Your task to perform on an android device: Search for "sony triple a" on walmart.com, select the first entry, and add it to the cart. Image 0: 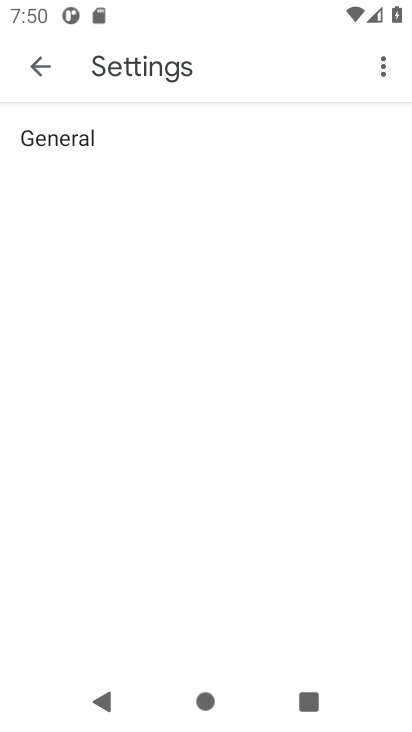
Step 0: press home button
Your task to perform on an android device: Search for "sony triple a" on walmart.com, select the first entry, and add it to the cart. Image 1: 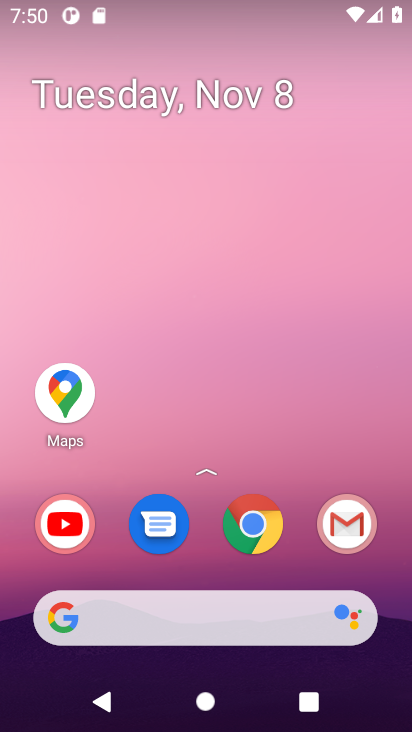
Step 1: click (259, 540)
Your task to perform on an android device: Search for "sony triple a" on walmart.com, select the first entry, and add it to the cart. Image 2: 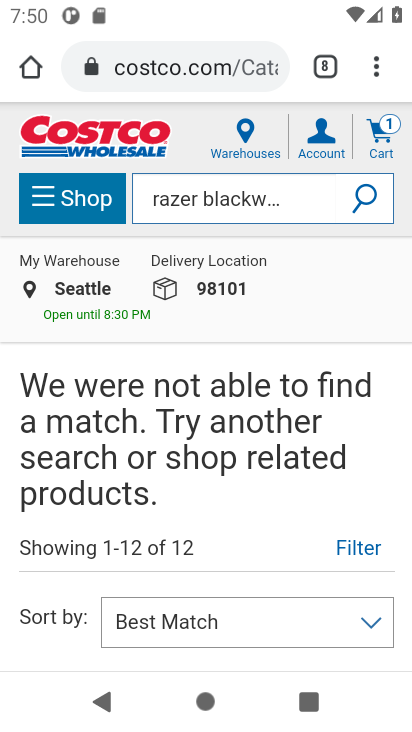
Step 2: click (197, 72)
Your task to perform on an android device: Search for "sony triple a" on walmart.com, select the first entry, and add it to the cart. Image 3: 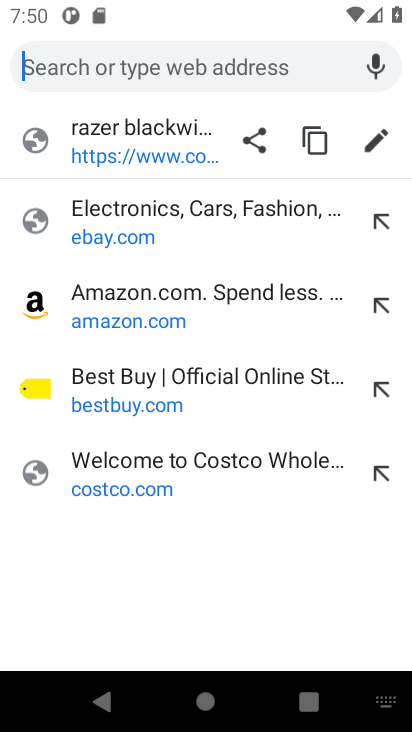
Step 3: type "walmart.com"
Your task to perform on an android device: Search for "sony triple a" on walmart.com, select the first entry, and add it to the cart. Image 4: 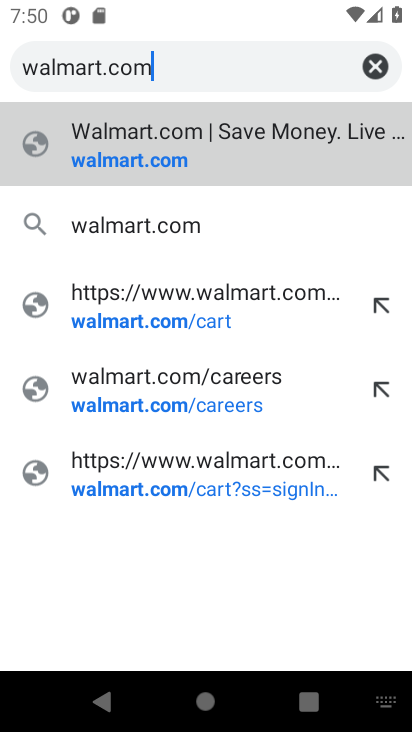
Step 4: click (186, 154)
Your task to perform on an android device: Search for "sony triple a" on walmart.com, select the first entry, and add it to the cart. Image 5: 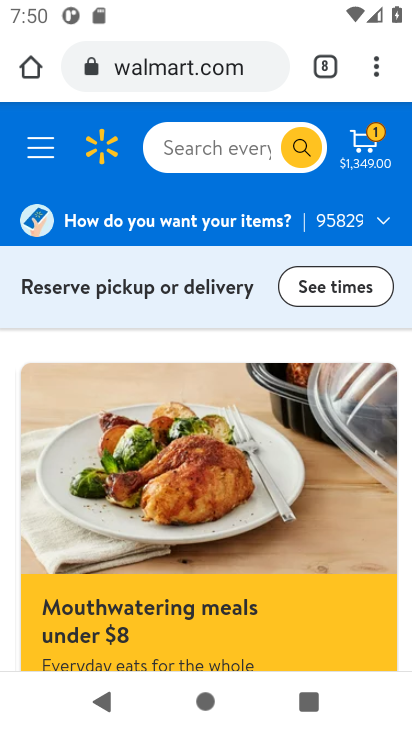
Step 5: click (182, 144)
Your task to perform on an android device: Search for "sony triple a" on walmart.com, select the first entry, and add it to the cart. Image 6: 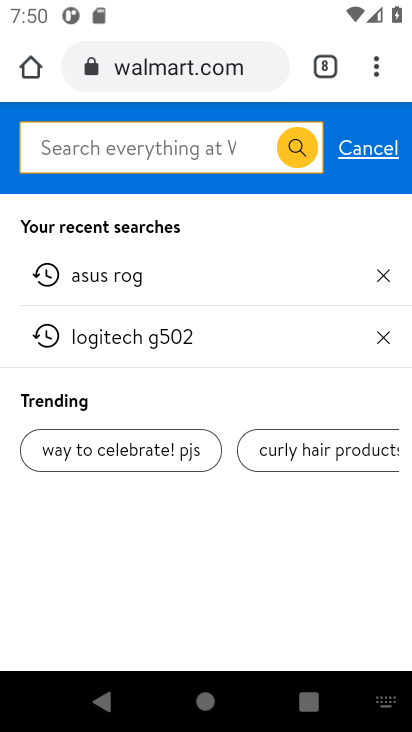
Step 6: type "sony triple a"
Your task to perform on an android device: Search for "sony triple a" on walmart.com, select the first entry, and add it to the cart. Image 7: 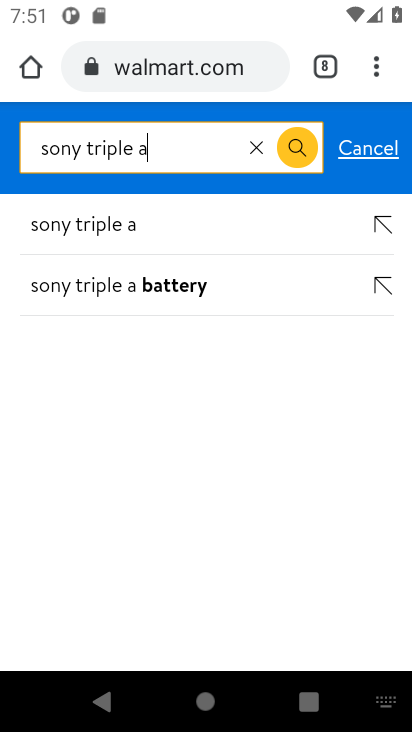
Step 7: click (140, 234)
Your task to perform on an android device: Search for "sony triple a" on walmart.com, select the first entry, and add it to the cart. Image 8: 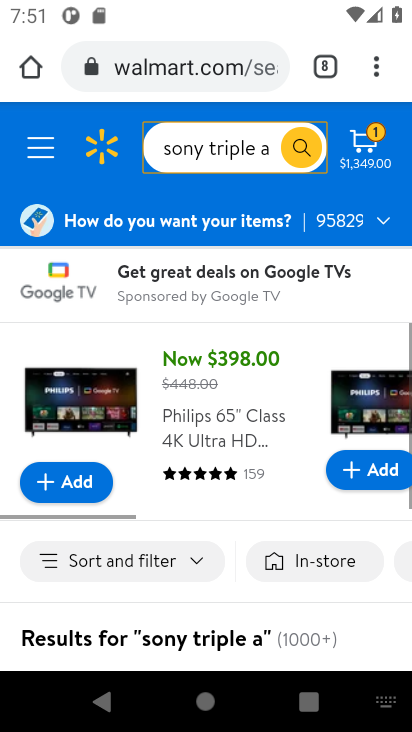
Step 8: task complete